Your task to perform on an android device: View the shopping cart on bestbuy. Add logitech g502 to the cart on bestbuy Image 0: 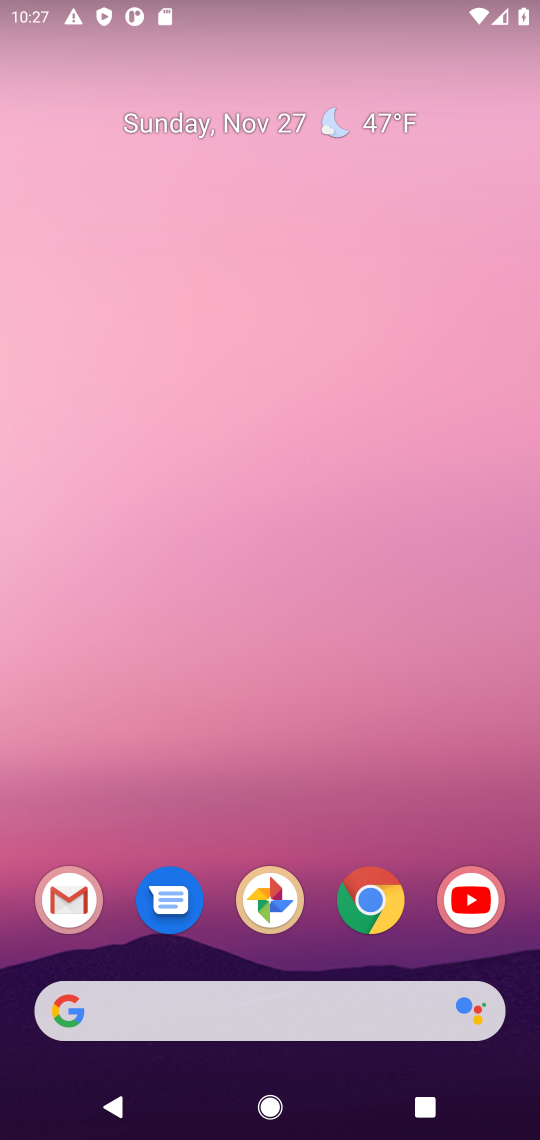
Step 0: click (364, 891)
Your task to perform on an android device: View the shopping cart on bestbuy. Add logitech g502 to the cart on bestbuy Image 1: 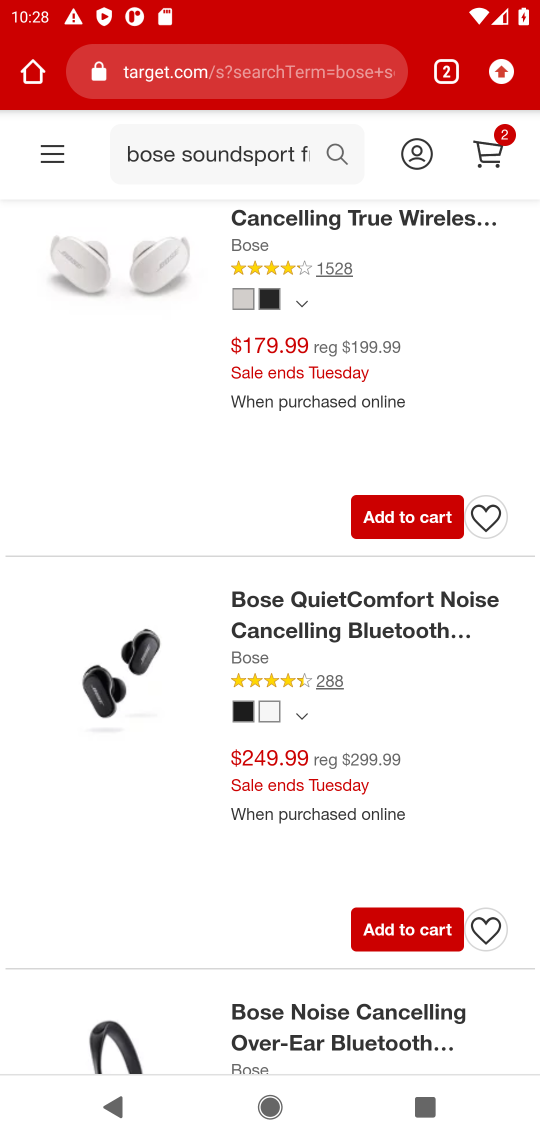
Step 1: click (179, 61)
Your task to perform on an android device: View the shopping cart on bestbuy. Add logitech g502 to the cart on bestbuy Image 2: 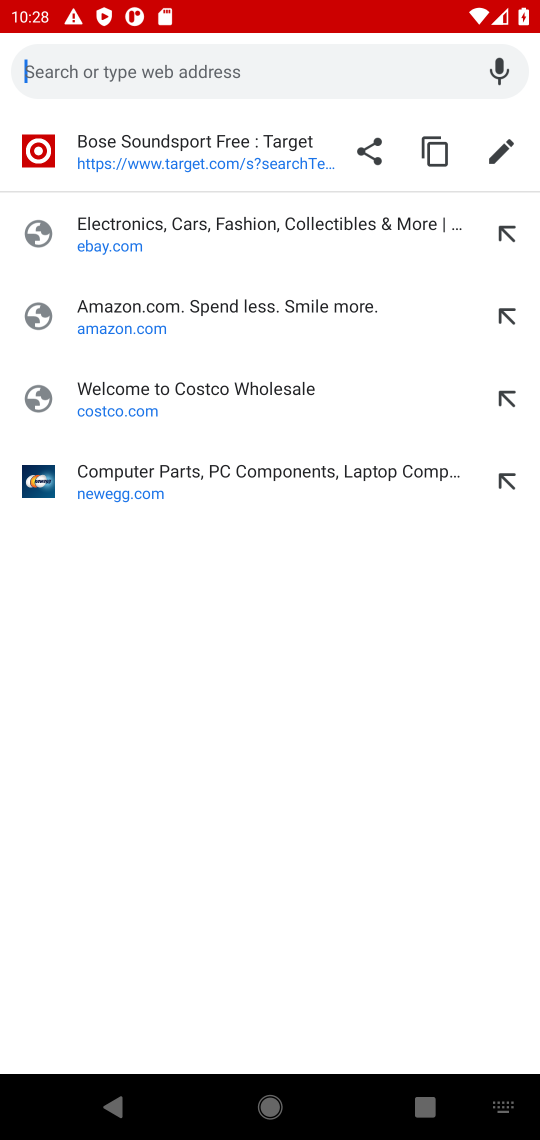
Step 2: type "bestbuy.com"
Your task to perform on an android device: View the shopping cart on bestbuy. Add logitech g502 to the cart on bestbuy Image 3: 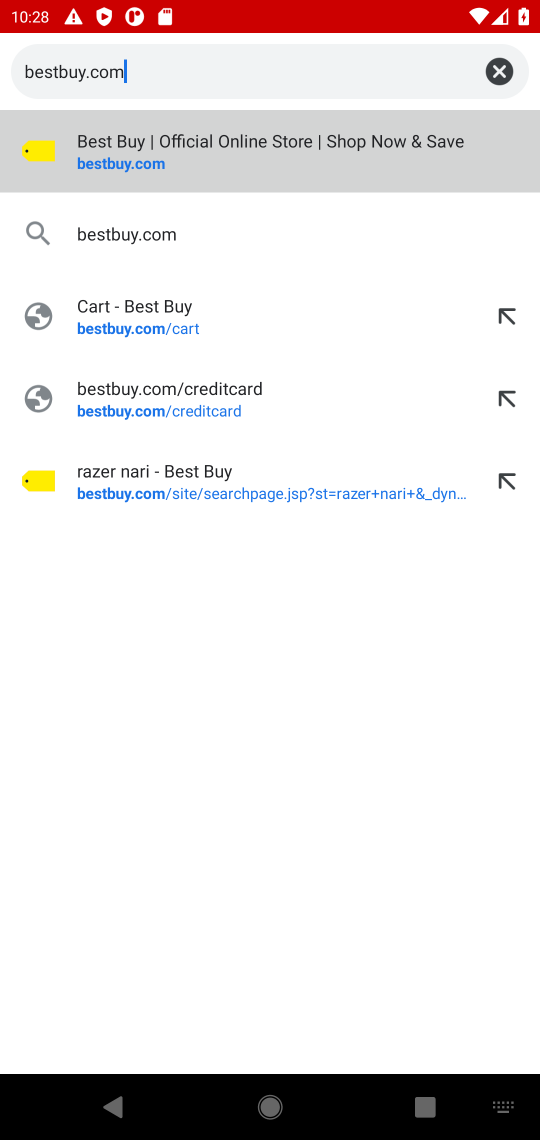
Step 3: click (100, 154)
Your task to perform on an android device: View the shopping cart on bestbuy. Add logitech g502 to the cart on bestbuy Image 4: 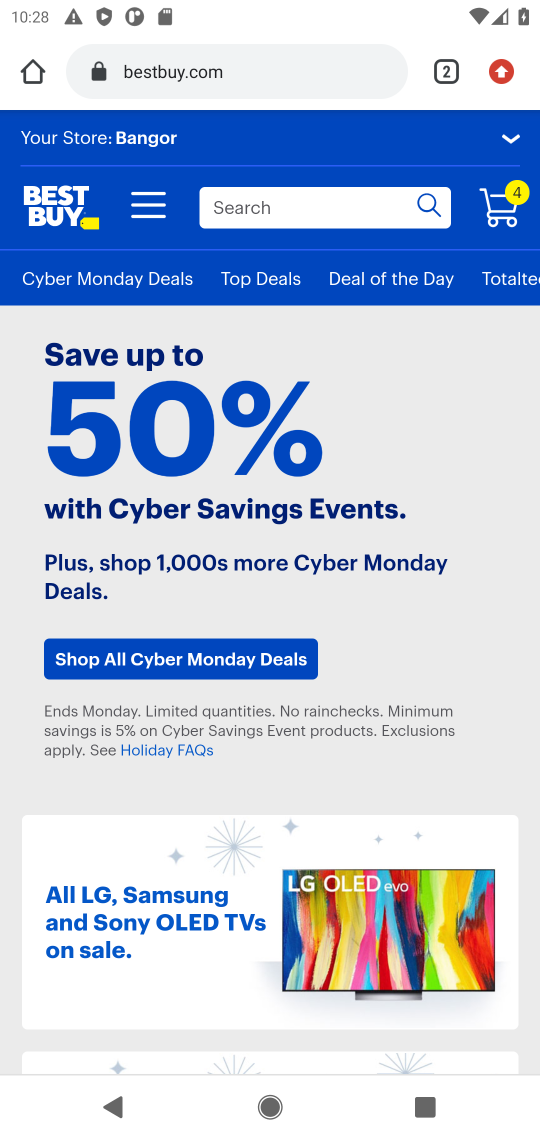
Step 4: click (503, 197)
Your task to perform on an android device: View the shopping cart on bestbuy. Add logitech g502 to the cart on bestbuy Image 5: 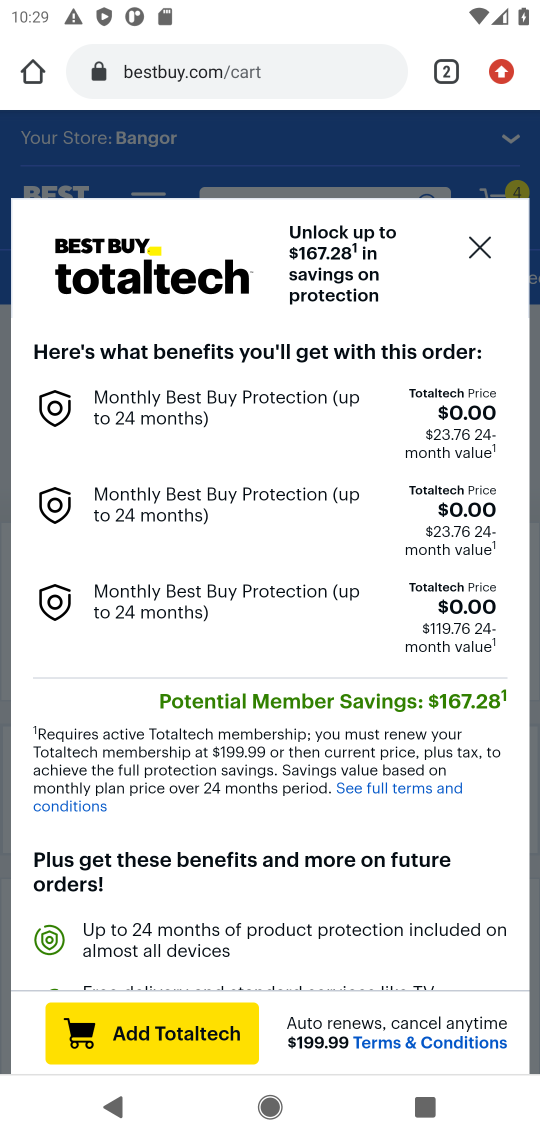
Step 5: click (473, 257)
Your task to perform on an android device: View the shopping cart on bestbuy. Add logitech g502 to the cart on bestbuy Image 6: 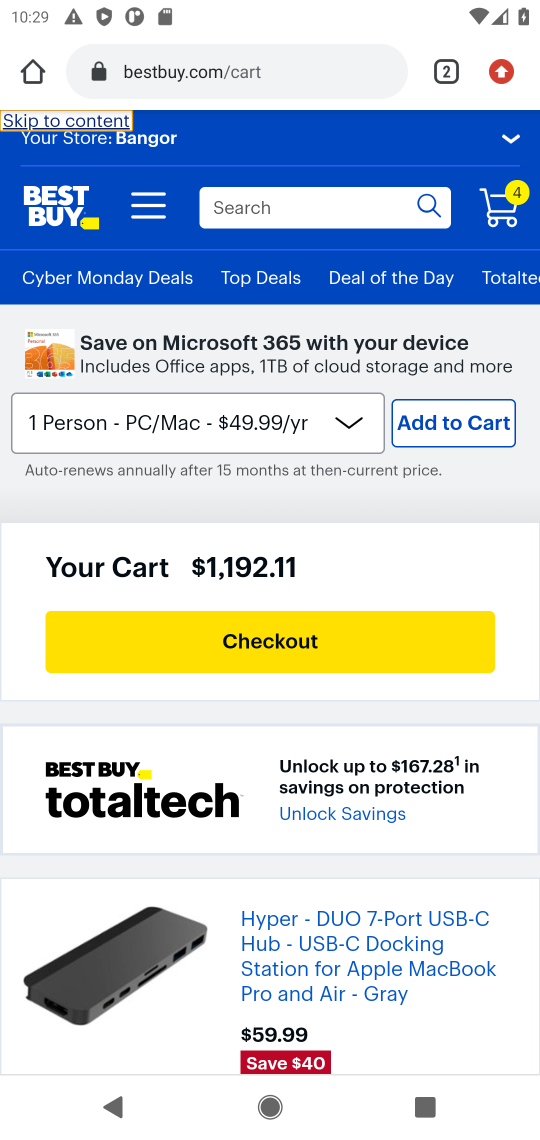
Step 6: click (239, 210)
Your task to perform on an android device: View the shopping cart on bestbuy. Add logitech g502 to the cart on bestbuy Image 7: 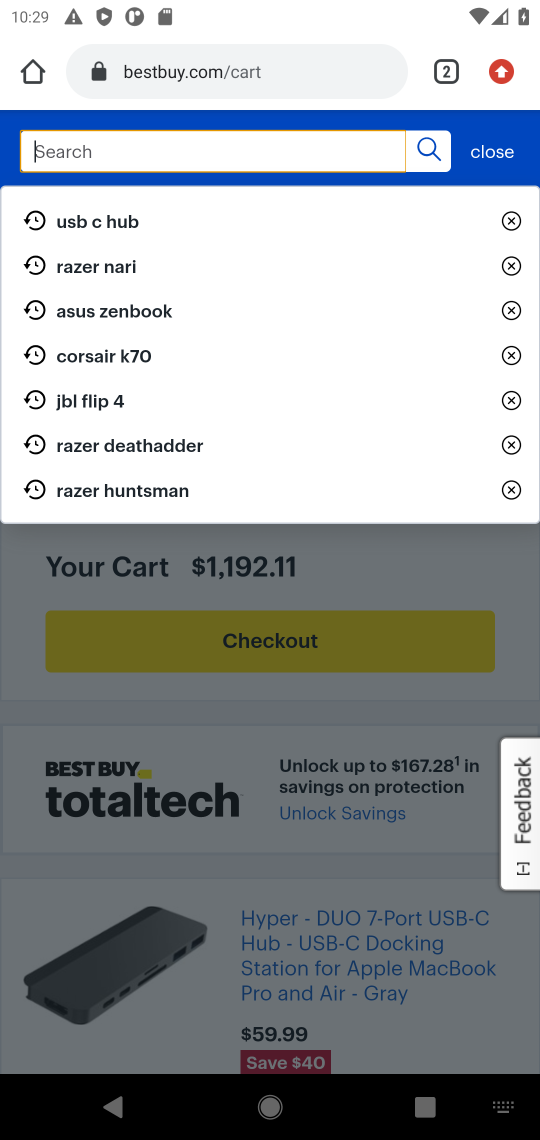
Step 7: type "logitech g502"
Your task to perform on an android device: View the shopping cart on bestbuy. Add logitech g502 to the cart on bestbuy Image 8: 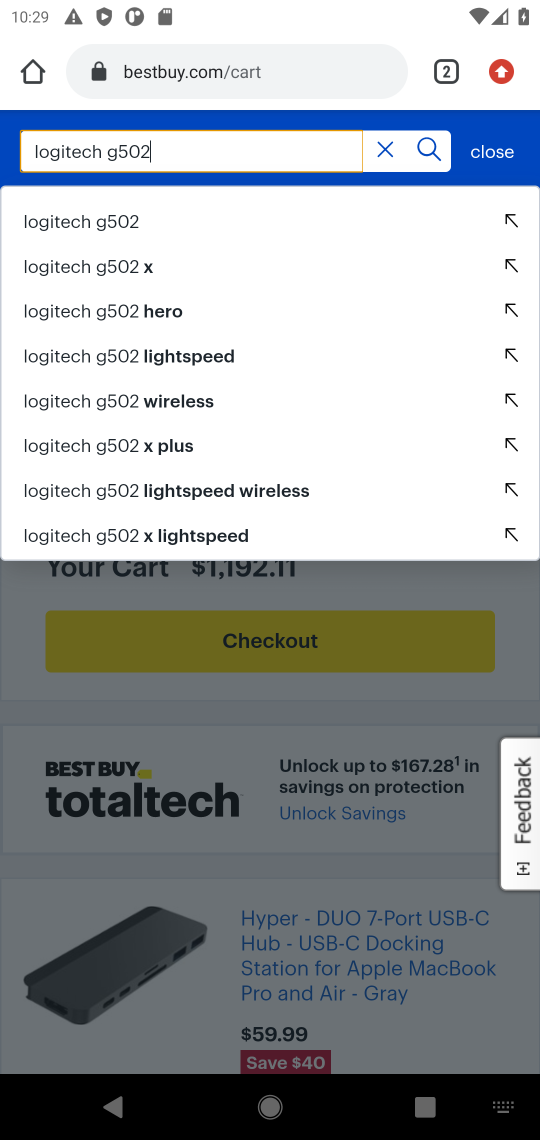
Step 8: click (69, 229)
Your task to perform on an android device: View the shopping cart on bestbuy. Add logitech g502 to the cart on bestbuy Image 9: 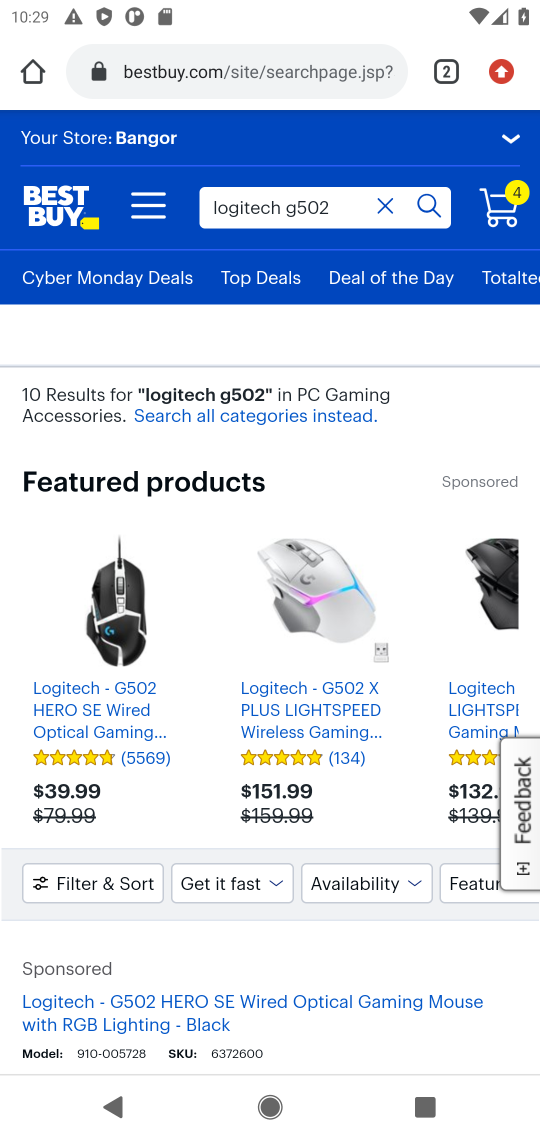
Step 9: drag from (510, 944) to (504, 597)
Your task to perform on an android device: View the shopping cart on bestbuy. Add logitech g502 to the cart on bestbuy Image 10: 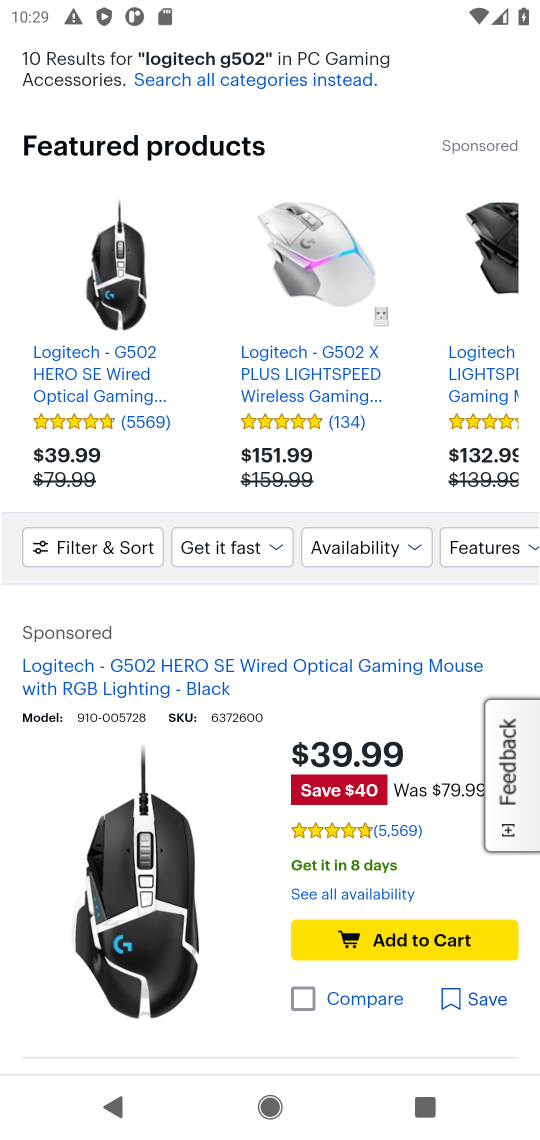
Step 10: click (400, 941)
Your task to perform on an android device: View the shopping cart on bestbuy. Add logitech g502 to the cart on bestbuy Image 11: 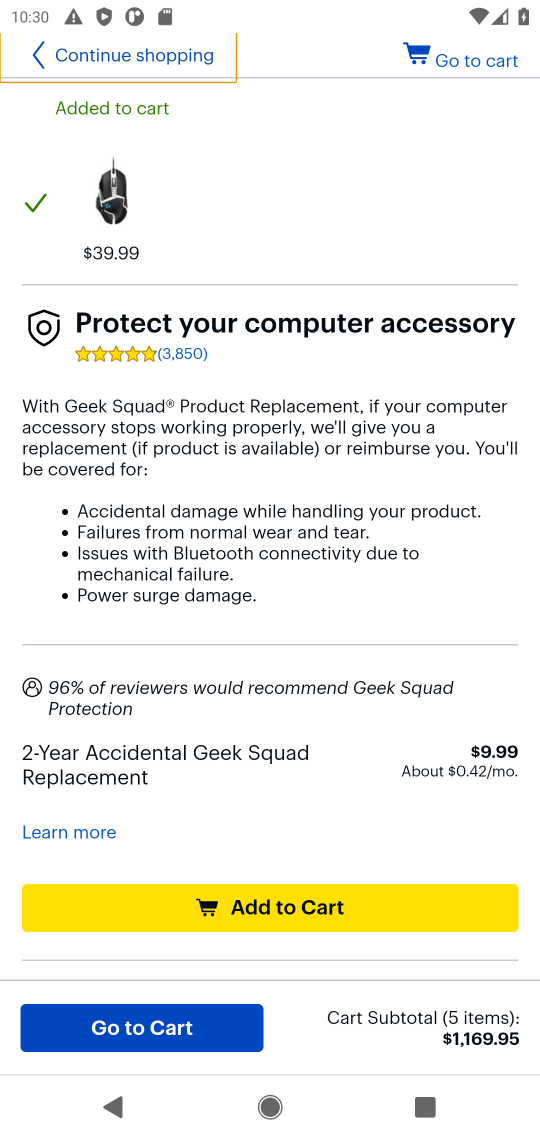
Step 11: task complete